Your task to perform on an android device: check storage Image 0: 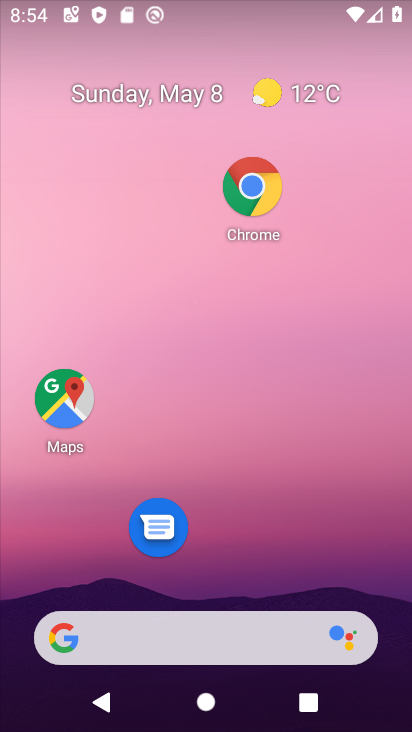
Step 0: click (322, 304)
Your task to perform on an android device: check storage Image 1: 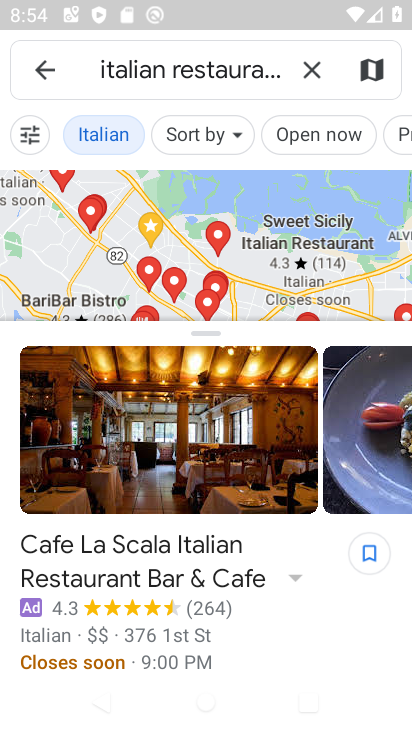
Step 1: press home button
Your task to perform on an android device: check storage Image 2: 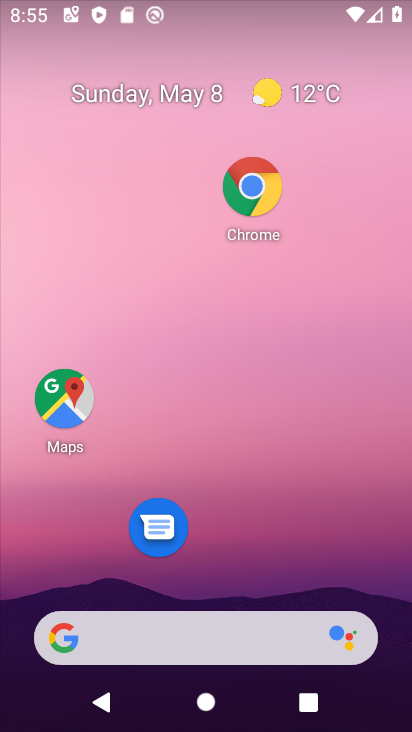
Step 2: drag from (319, 574) to (348, 340)
Your task to perform on an android device: check storage Image 3: 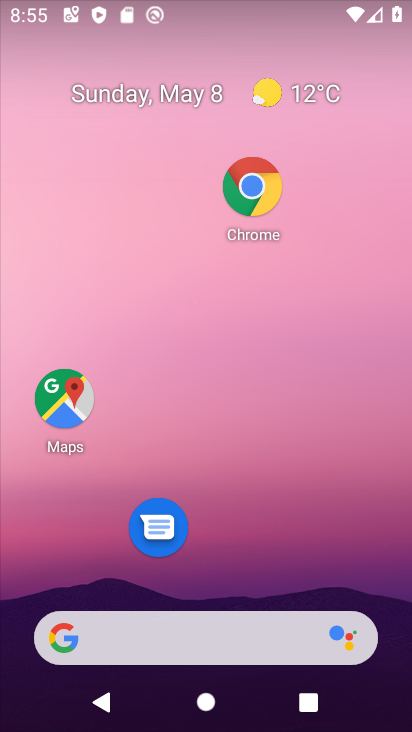
Step 3: drag from (293, 585) to (318, 305)
Your task to perform on an android device: check storage Image 4: 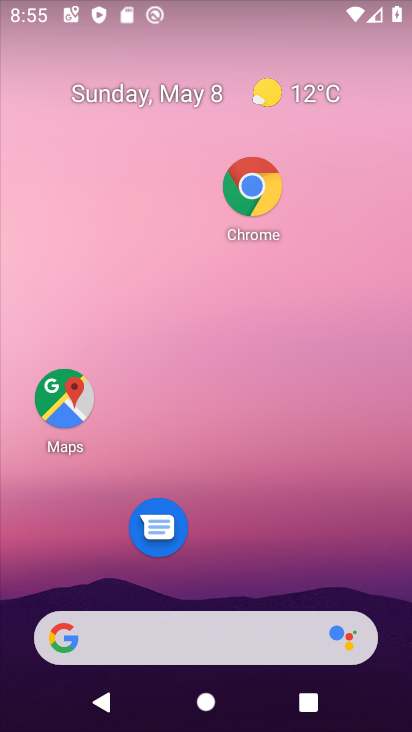
Step 4: drag from (326, 344) to (360, 184)
Your task to perform on an android device: check storage Image 5: 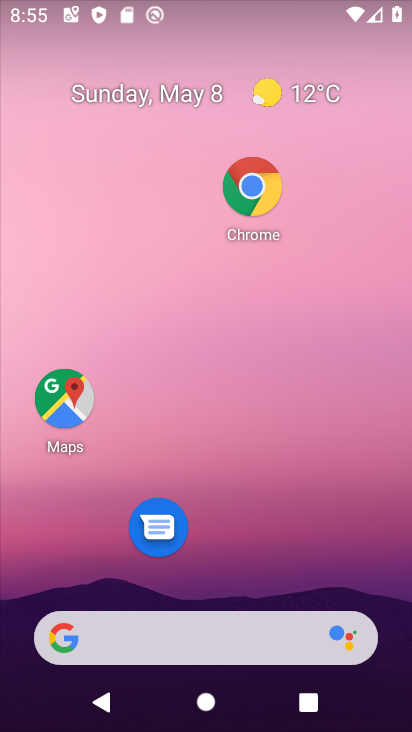
Step 5: drag from (266, 585) to (329, 99)
Your task to perform on an android device: check storage Image 6: 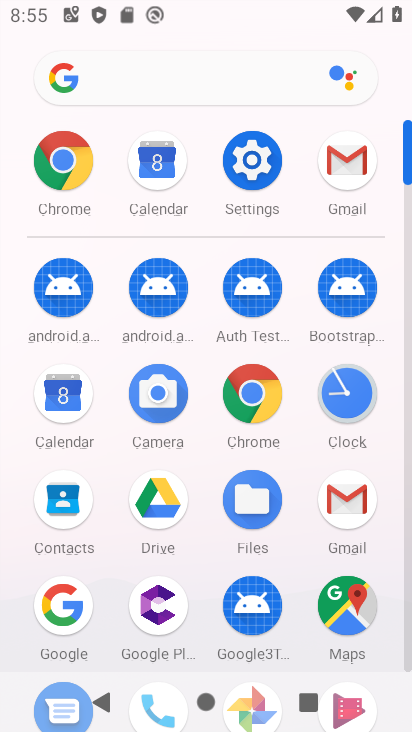
Step 6: click (247, 149)
Your task to perform on an android device: check storage Image 7: 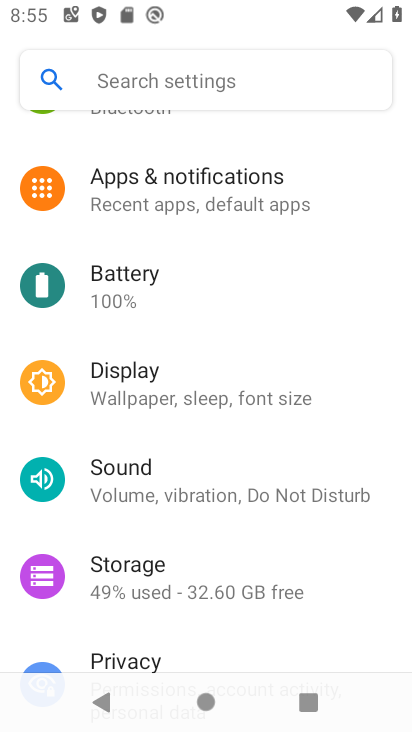
Step 7: click (159, 588)
Your task to perform on an android device: check storage Image 8: 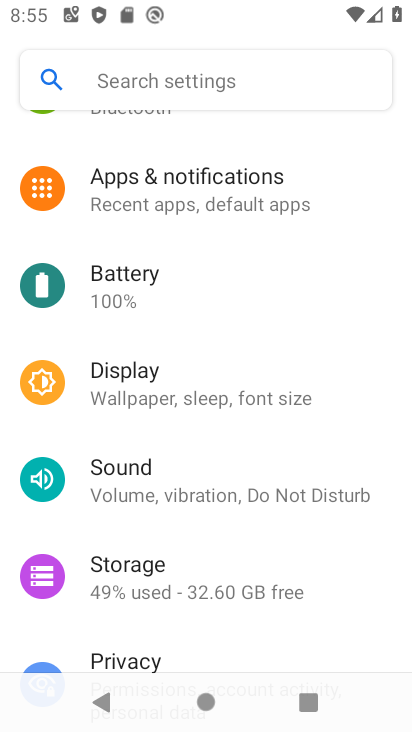
Step 8: click (211, 579)
Your task to perform on an android device: check storage Image 9: 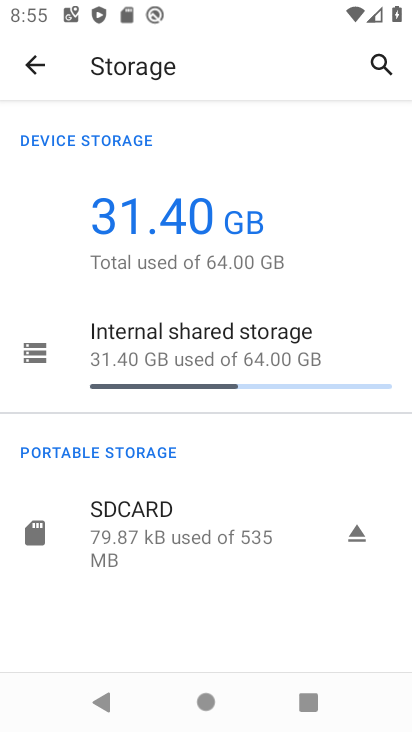
Step 9: task complete